Your task to perform on an android device: change the clock display to show seconds Image 0: 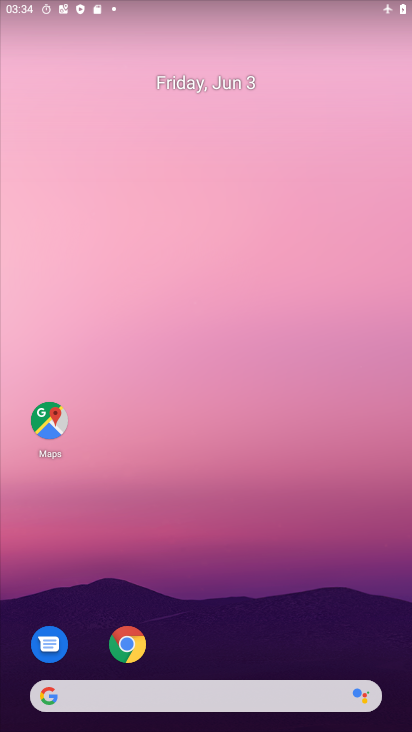
Step 0: drag from (217, 627) to (210, 253)
Your task to perform on an android device: change the clock display to show seconds Image 1: 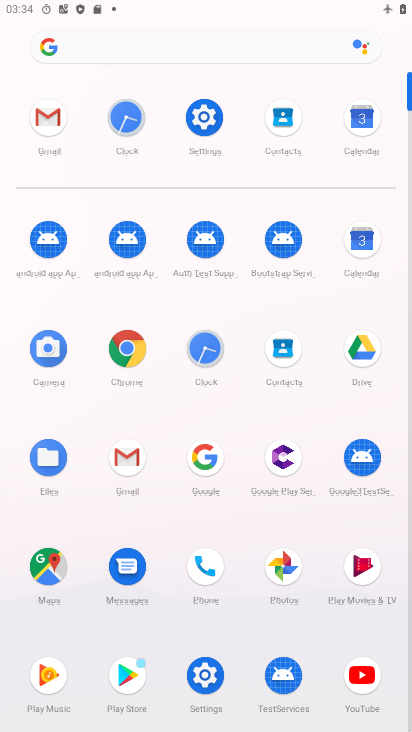
Step 1: click (121, 105)
Your task to perform on an android device: change the clock display to show seconds Image 2: 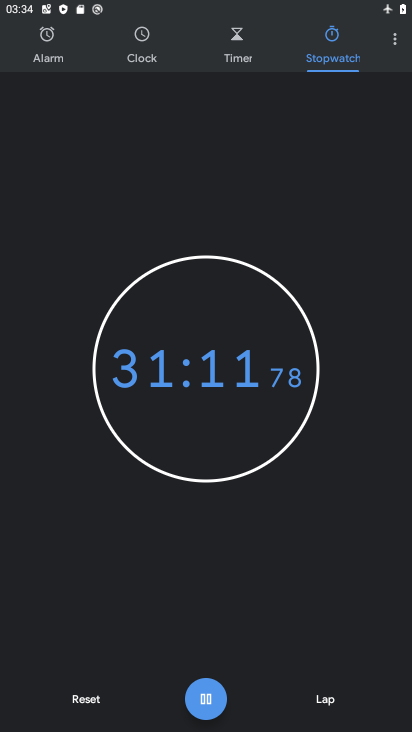
Step 2: click (385, 35)
Your task to perform on an android device: change the clock display to show seconds Image 3: 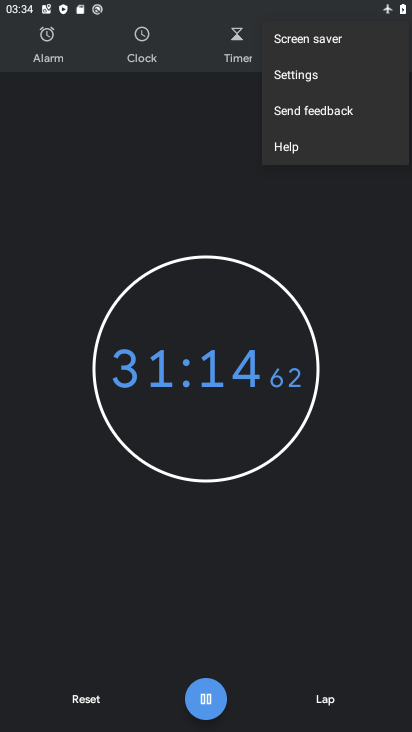
Step 3: click (309, 83)
Your task to perform on an android device: change the clock display to show seconds Image 4: 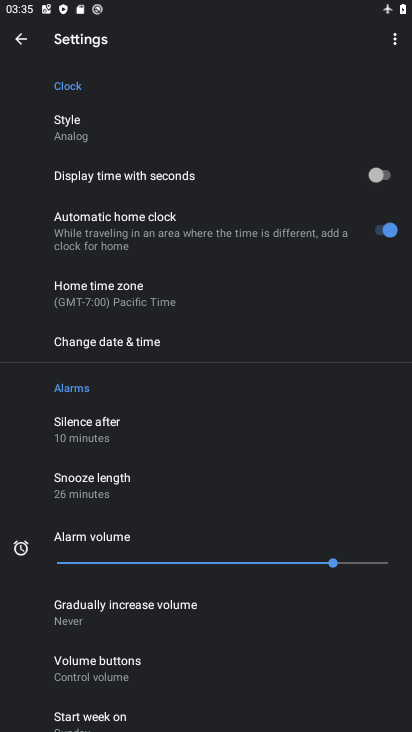
Step 4: task complete